Your task to perform on an android device: Open the phone app and click the voicemail tab. Image 0: 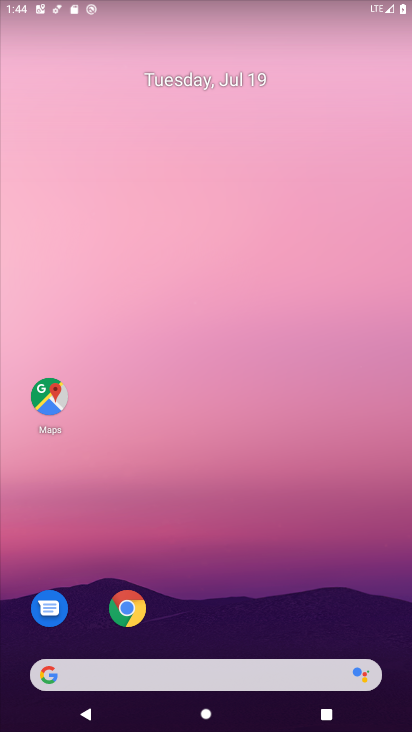
Step 0: drag from (276, 590) to (347, 183)
Your task to perform on an android device: Open the phone app and click the voicemail tab. Image 1: 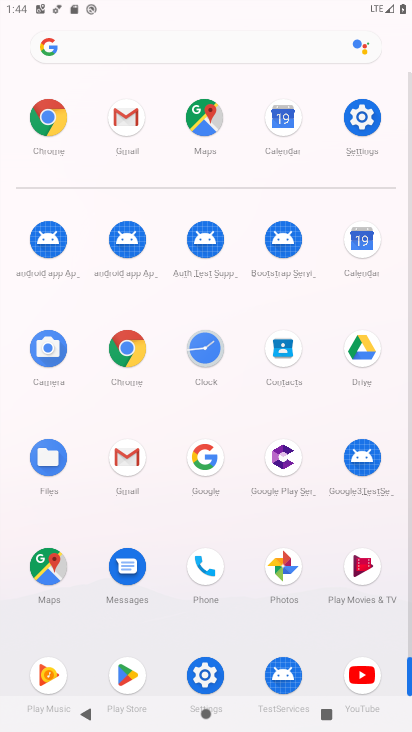
Step 1: click (202, 568)
Your task to perform on an android device: Open the phone app and click the voicemail tab. Image 2: 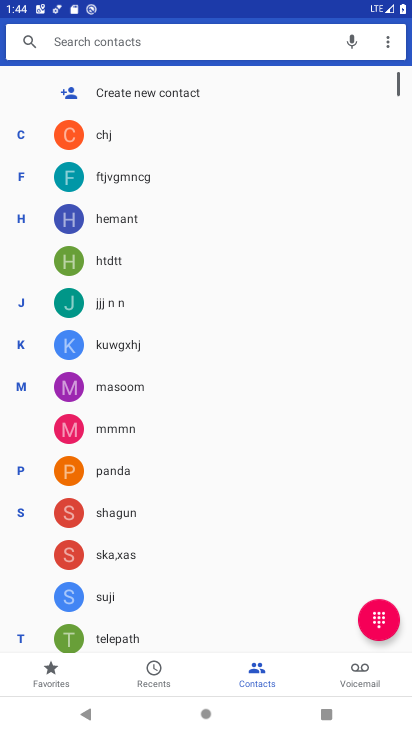
Step 2: click (353, 682)
Your task to perform on an android device: Open the phone app and click the voicemail tab. Image 3: 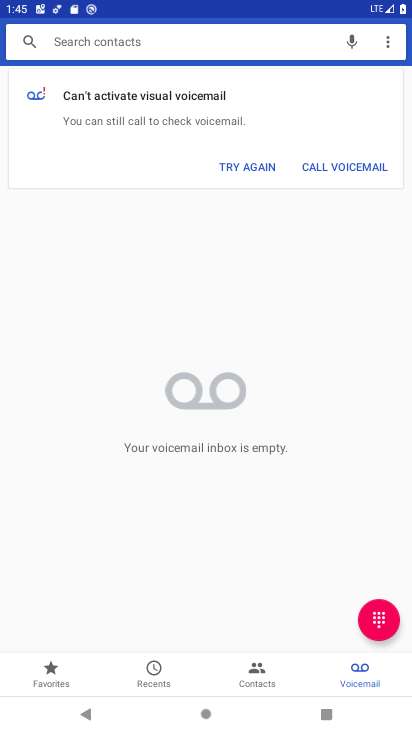
Step 3: task complete